Your task to perform on an android device: Open settings Image 0: 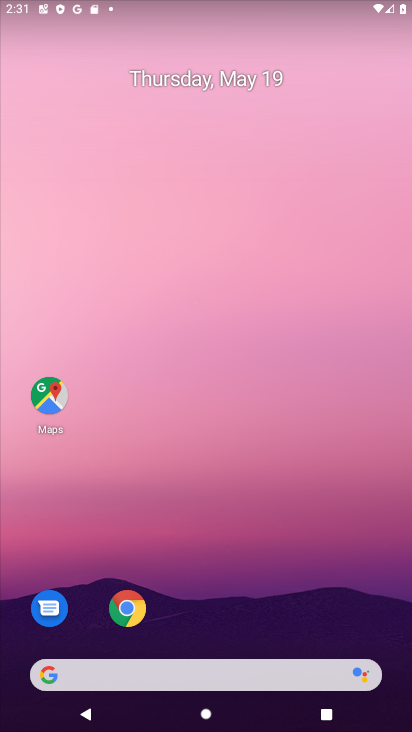
Step 0: drag from (300, 637) to (254, 151)
Your task to perform on an android device: Open settings Image 1: 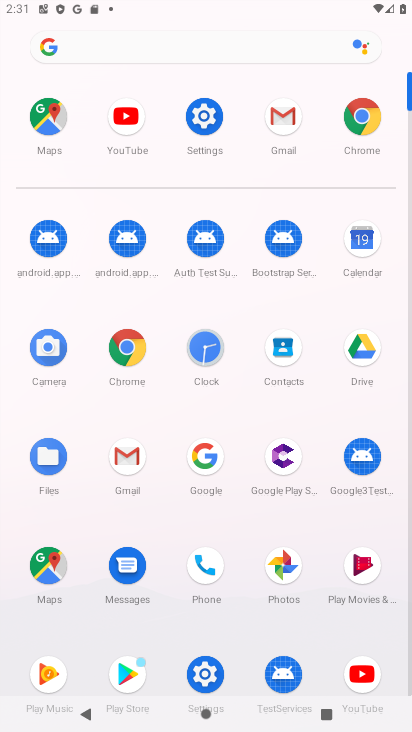
Step 1: click (185, 112)
Your task to perform on an android device: Open settings Image 2: 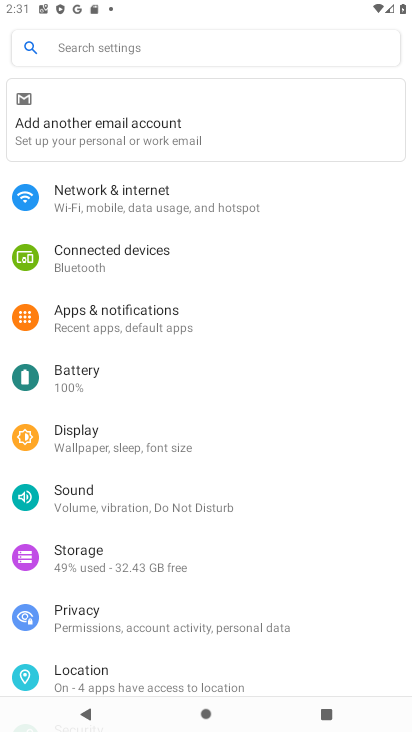
Step 2: task complete